Your task to perform on an android device: Open wifi settings Image 0: 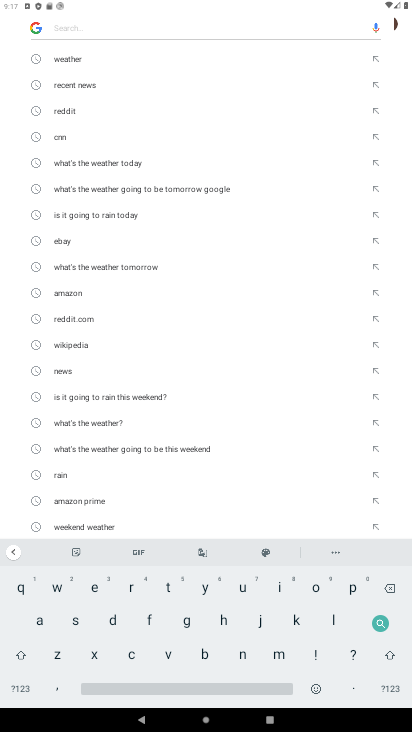
Step 0: press home button
Your task to perform on an android device: Open wifi settings Image 1: 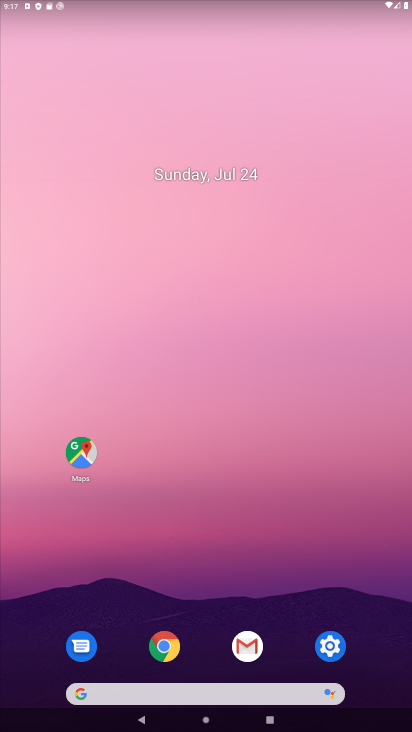
Step 1: click (332, 647)
Your task to perform on an android device: Open wifi settings Image 2: 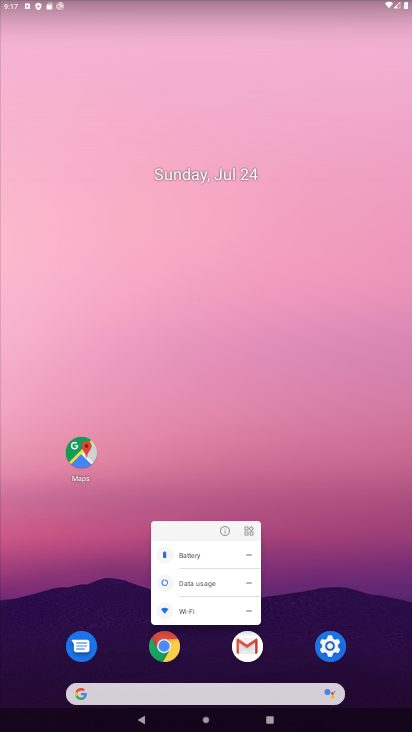
Step 2: click (328, 639)
Your task to perform on an android device: Open wifi settings Image 3: 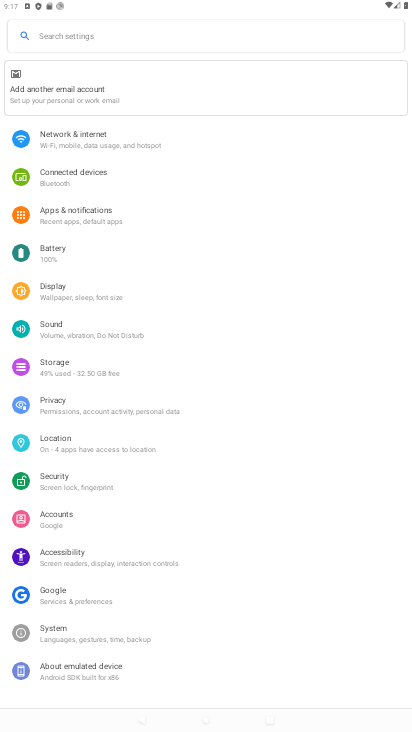
Step 3: click (102, 148)
Your task to perform on an android device: Open wifi settings Image 4: 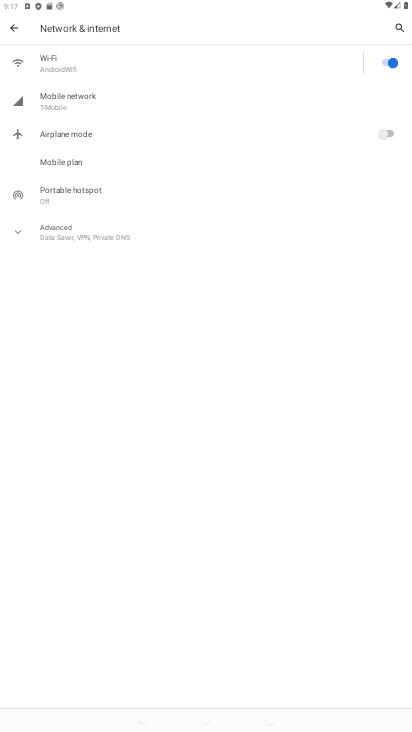
Step 4: click (85, 72)
Your task to perform on an android device: Open wifi settings Image 5: 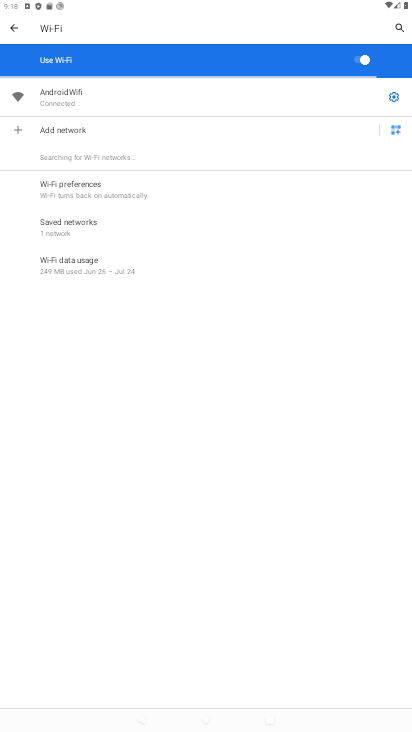
Step 5: task complete